Your task to perform on an android device: Go to location settings Image 0: 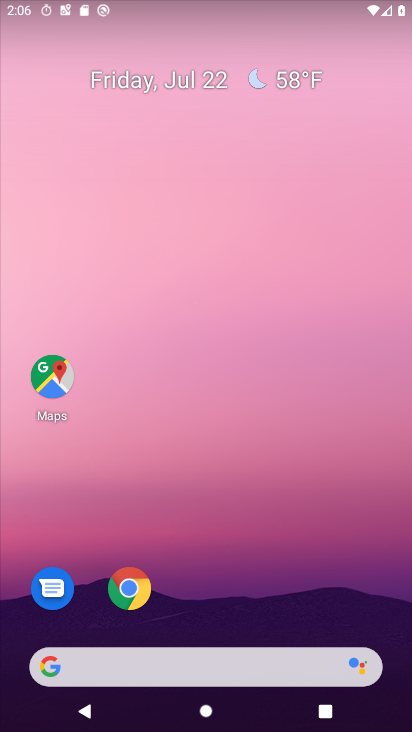
Step 0: press home button
Your task to perform on an android device: Go to location settings Image 1: 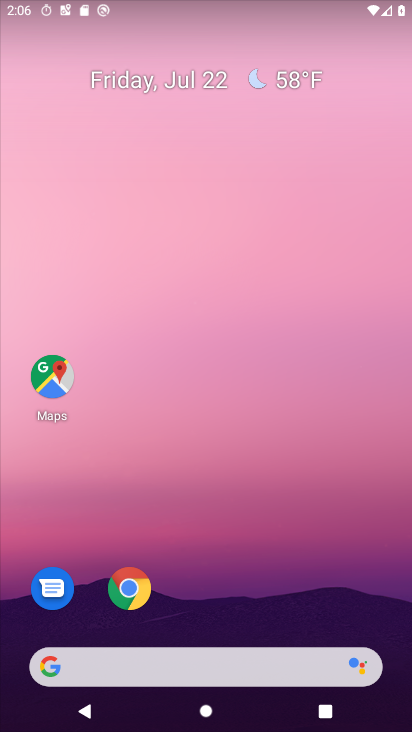
Step 1: drag from (204, 619) to (160, 132)
Your task to perform on an android device: Go to location settings Image 2: 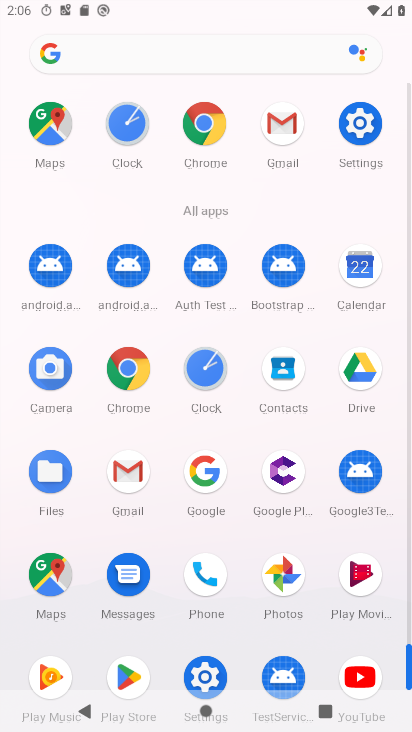
Step 2: click (385, 127)
Your task to perform on an android device: Go to location settings Image 3: 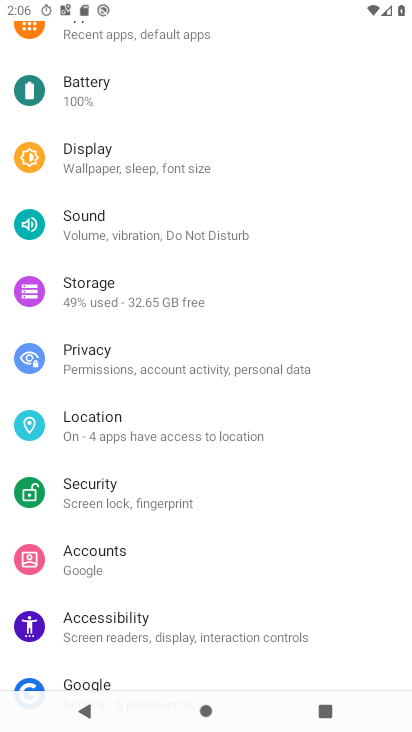
Step 3: click (103, 396)
Your task to perform on an android device: Go to location settings Image 4: 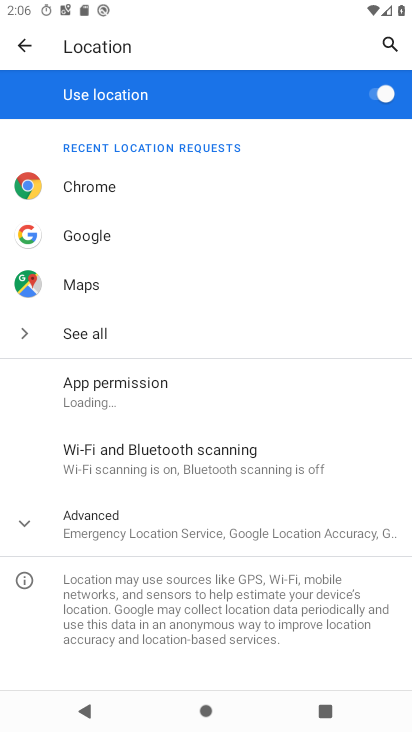
Step 4: task complete